Your task to perform on an android device: turn off notifications in google photos Image 0: 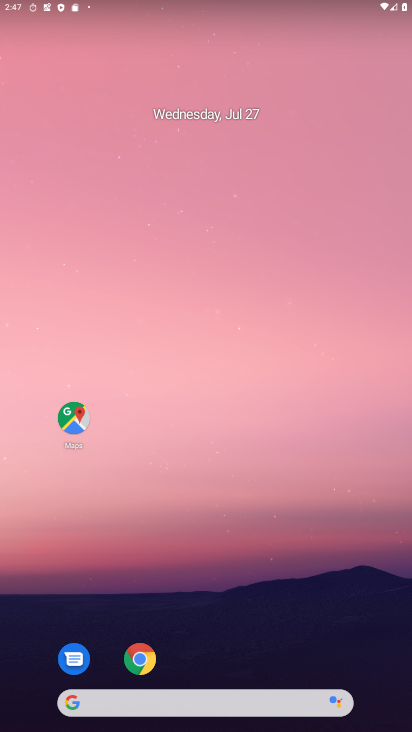
Step 0: drag from (204, 727) to (200, 83)
Your task to perform on an android device: turn off notifications in google photos Image 1: 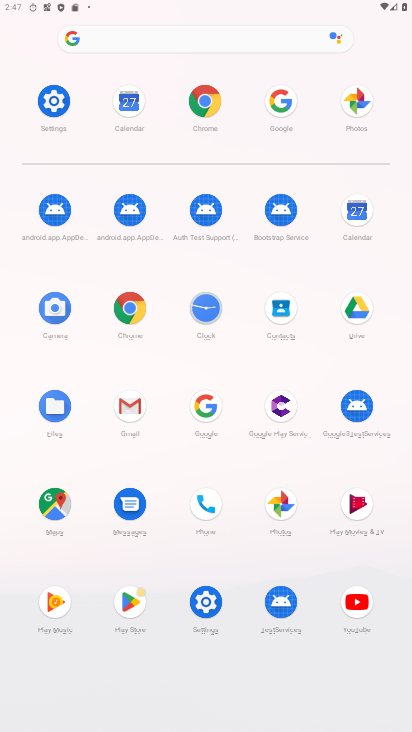
Step 1: click (286, 508)
Your task to perform on an android device: turn off notifications in google photos Image 2: 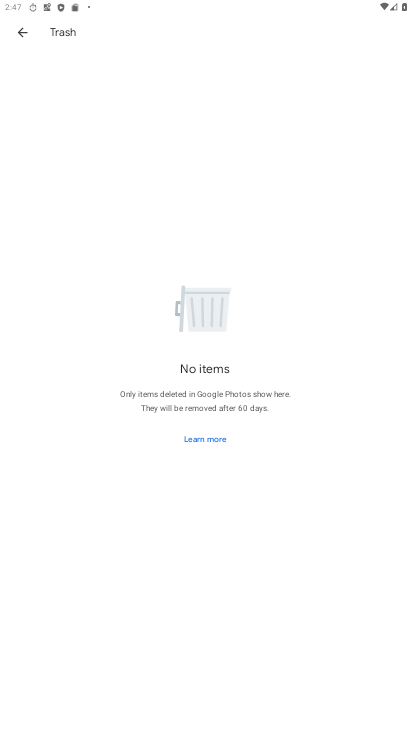
Step 2: click (28, 30)
Your task to perform on an android device: turn off notifications in google photos Image 3: 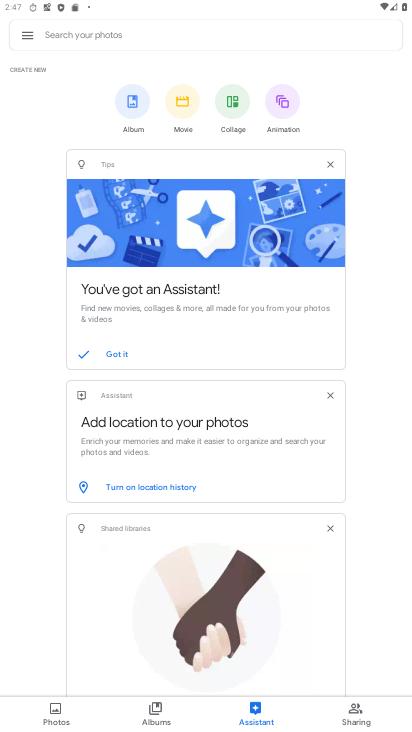
Step 3: click (24, 31)
Your task to perform on an android device: turn off notifications in google photos Image 4: 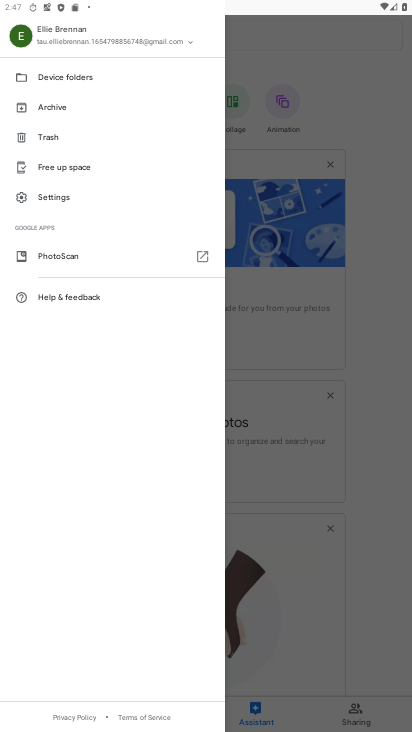
Step 4: click (54, 196)
Your task to perform on an android device: turn off notifications in google photos Image 5: 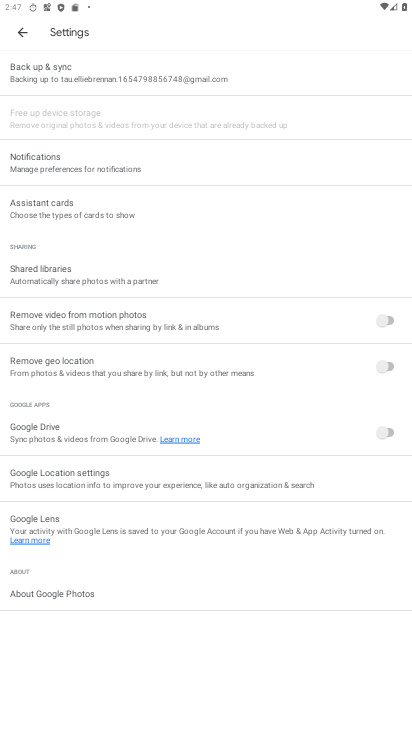
Step 5: click (43, 173)
Your task to perform on an android device: turn off notifications in google photos Image 6: 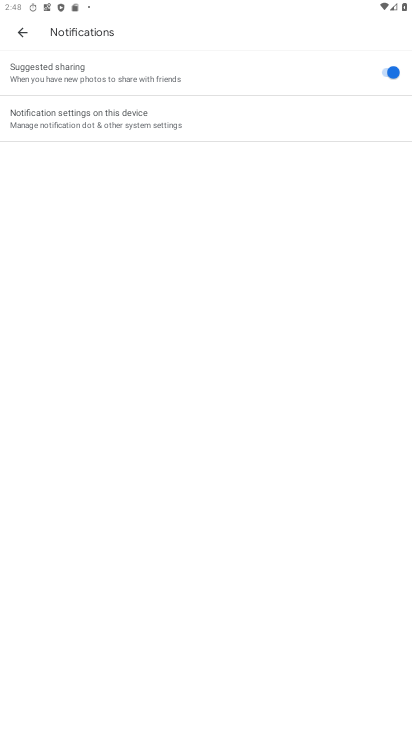
Step 6: click (43, 123)
Your task to perform on an android device: turn off notifications in google photos Image 7: 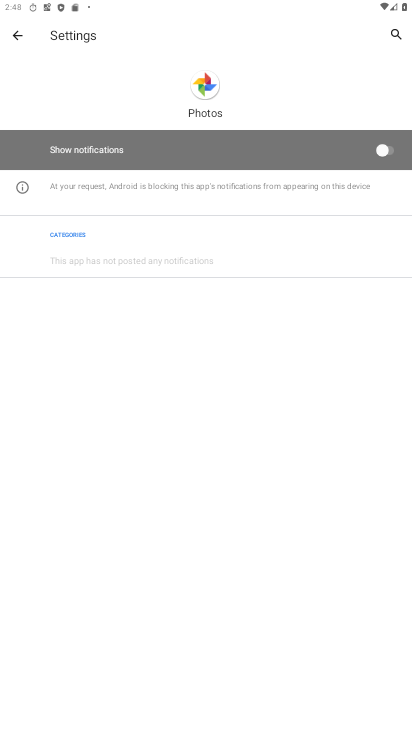
Step 7: task complete